Your task to perform on an android device: turn on translation in the chrome app Image 0: 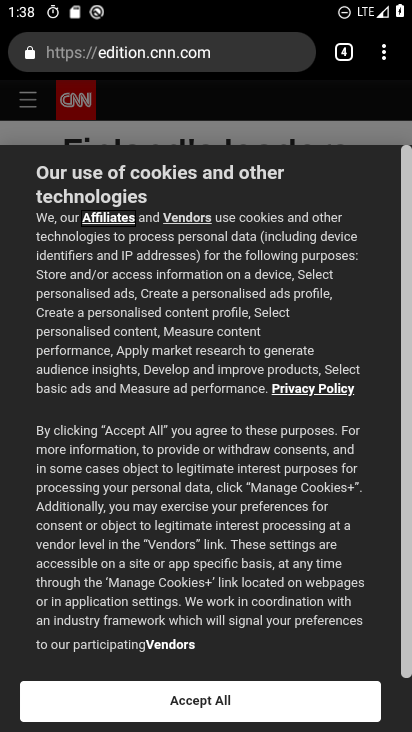
Step 0: drag from (385, 38) to (176, 582)
Your task to perform on an android device: turn on translation in the chrome app Image 1: 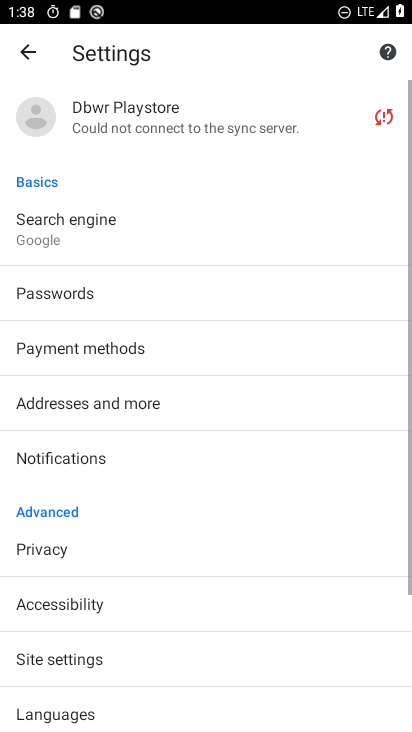
Step 1: drag from (156, 585) to (140, 288)
Your task to perform on an android device: turn on translation in the chrome app Image 2: 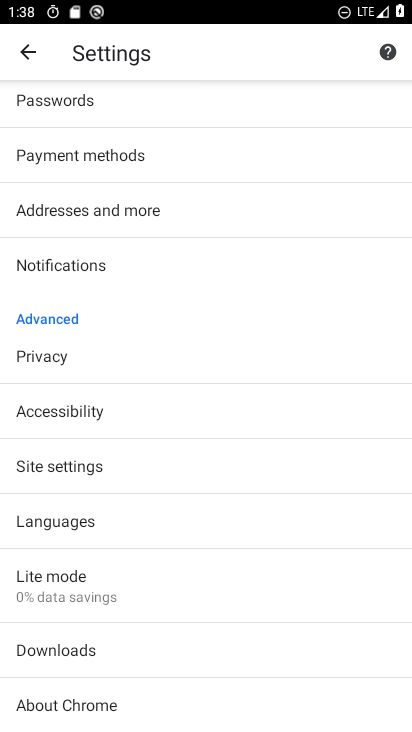
Step 2: click (85, 528)
Your task to perform on an android device: turn on translation in the chrome app Image 3: 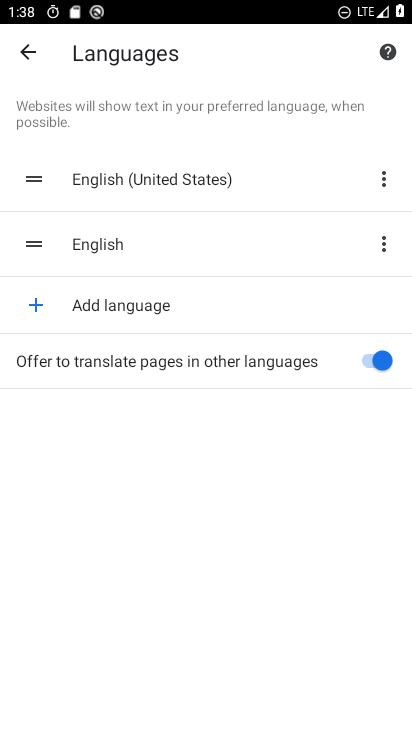
Step 3: task complete